Your task to perform on an android device: snooze an email in the gmail app Image 0: 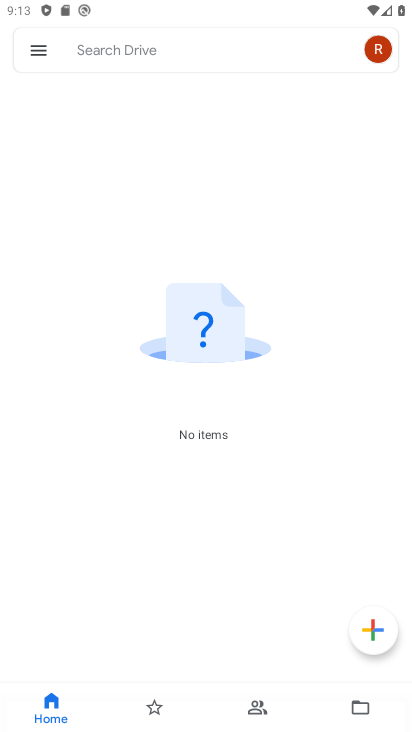
Step 0: press home button
Your task to perform on an android device: snooze an email in the gmail app Image 1: 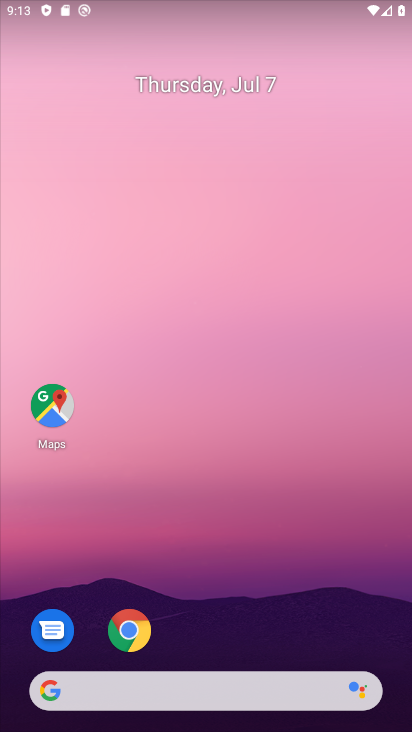
Step 1: drag from (187, 684) to (180, 397)
Your task to perform on an android device: snooze an email in the gmail app Image 2: 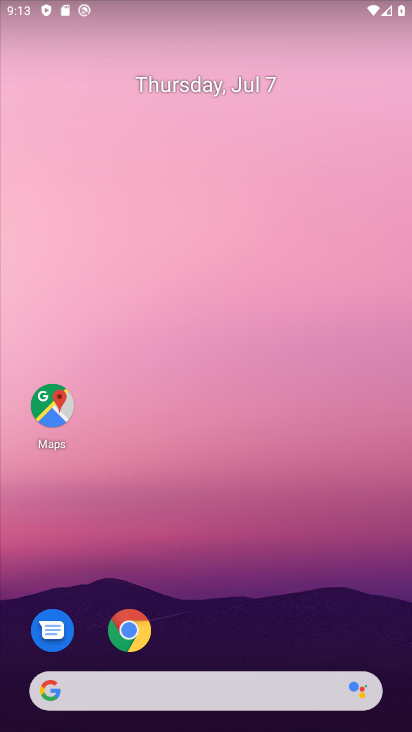
Step 2: drag from (185, 669) to (182, 212)
Your task to perform on an android device: snooze an email in the gmail app Image 3: 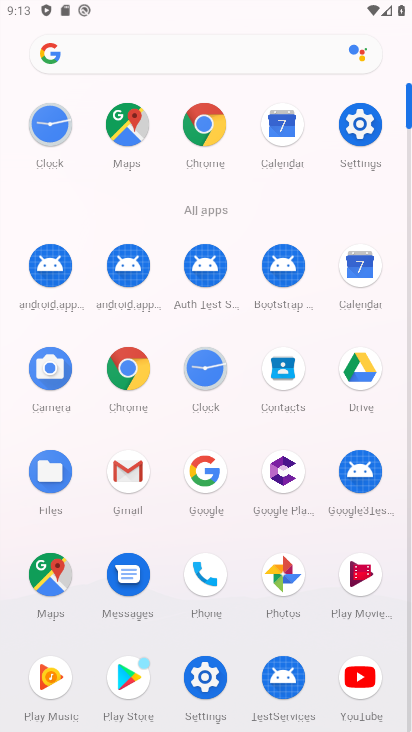
Step 3: click (124, 461)
Your task to perform on an android device: snooze an email in the gmail app Image 4: 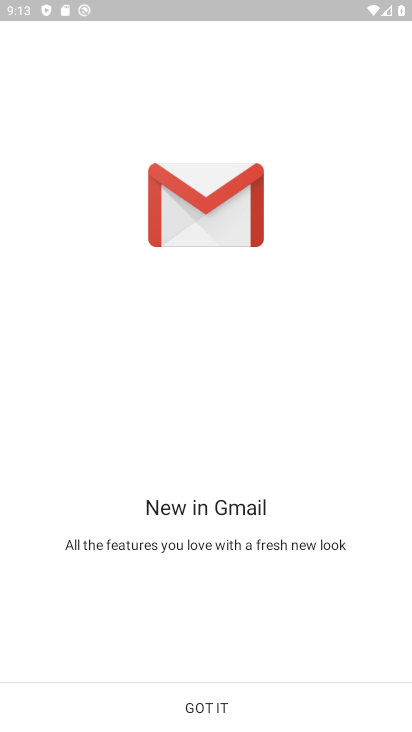
Step 4: click (216, 714)
Your task to perform on an android device: snooze an email in the gmail app Image 5: 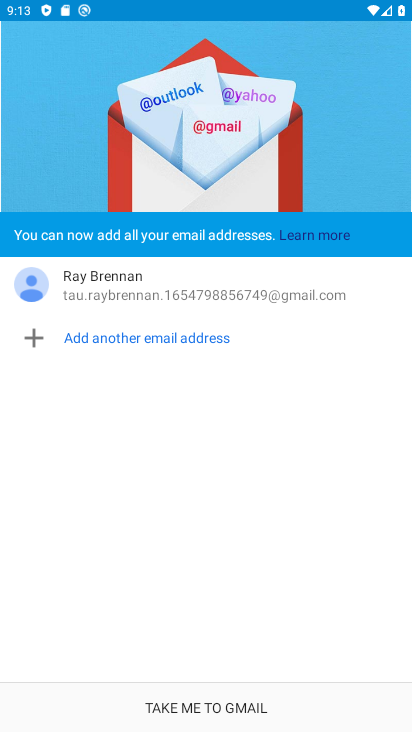
Step 5: click (216, 714)
Your task to perform on an android device: snooze an email in the gmail app Image 6: 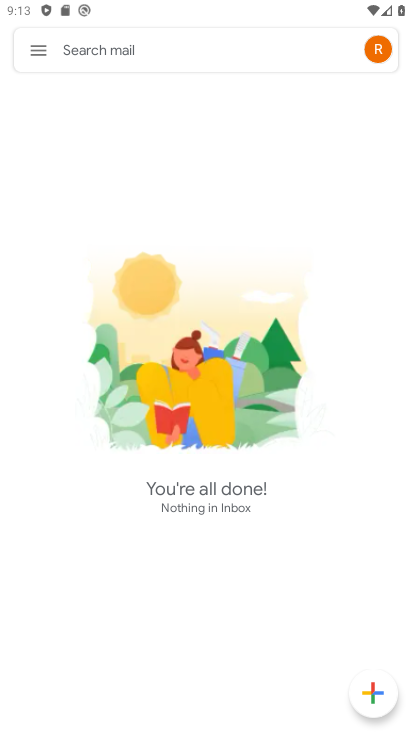
Step 6: task complete